Your task to perform on an android device: Turn on the flashlight Image 0: 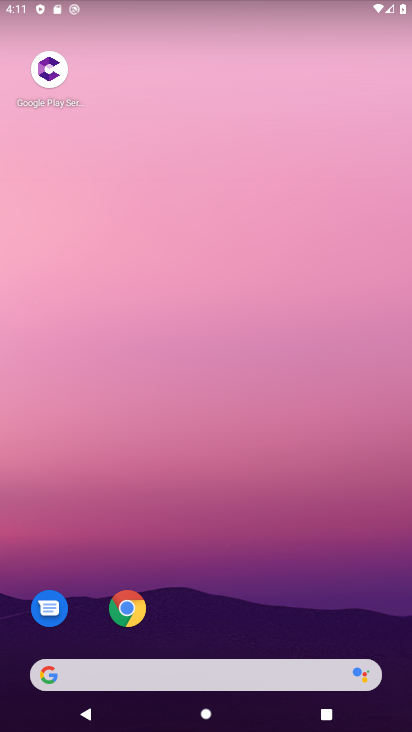
Step 0: drag from (218, 730) to (222, 179)
Your task to perform on an android device: Turn on the flashlight Image 1: 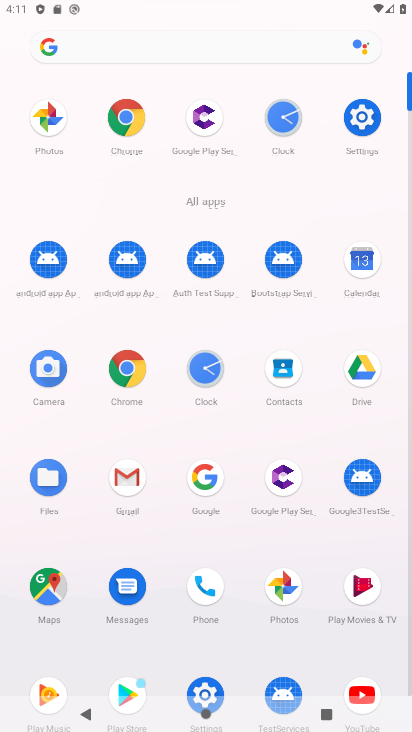
Step 1: click (359, 126)
Your task to perform on an android device: Turn on the flashlight Image 2: 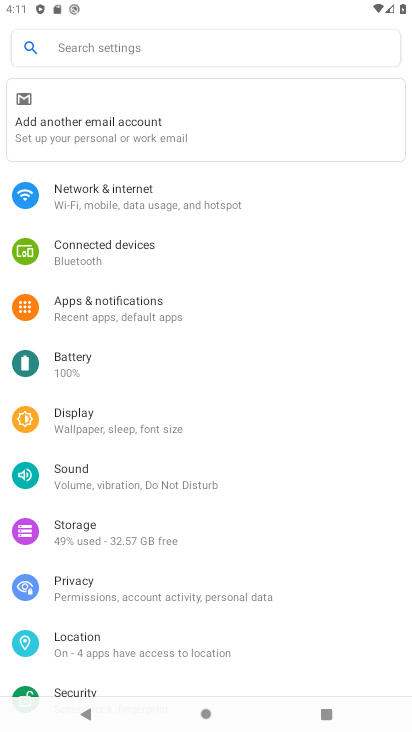
Step 2: task complete